Your task to perform on an android device: Search for the best gaming mouses on Amazon. Image 0: 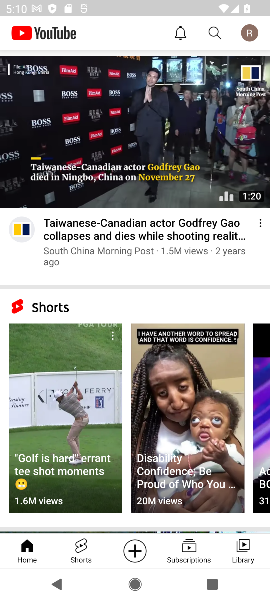
Step 0: press home button
Your task to perform on an android device: Search for the best gaming mouses on Amazon. Image 1: 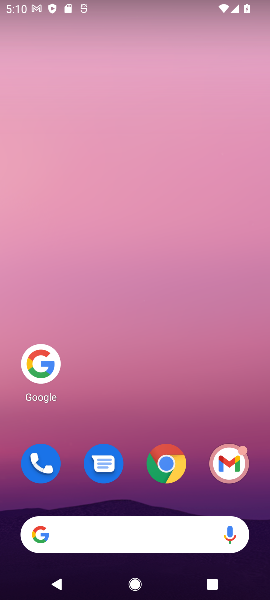
Step 1: click (39, 360)
Your task to perform on an android device: Search for the best gaming mouses on Amazon. Image 2: 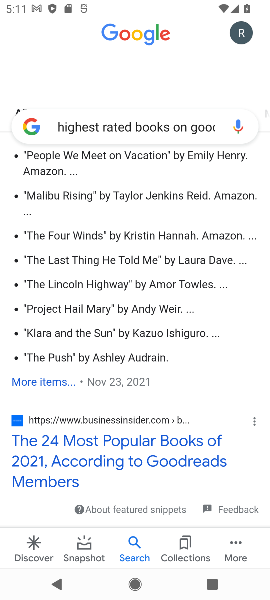
Step 2: click (168, 122)
Your task to perform on an android device: Search for the best gaming mouses on Amazon. Image 3: 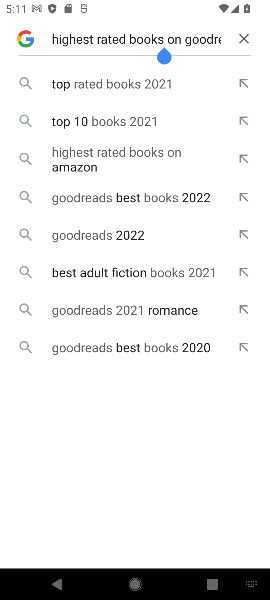
Step 3: click (240, 41)
Your task to perform on an android device: Search for the best gaming mouses on Amazon. Image 4: 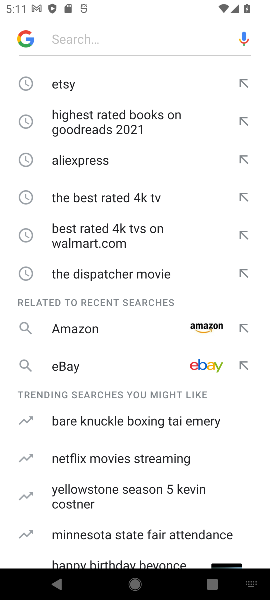
Step 4: click (134, 36)
Your task to perform on an android device: Search for the best gaming mouses on Amazon. Image 5: 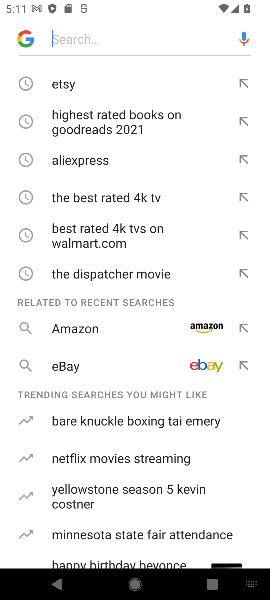
Step 5: type "best gaming mouses on Amazon "
Your task to perform on an android device: Search for the best gaming mouses on Amazon. Image 6: 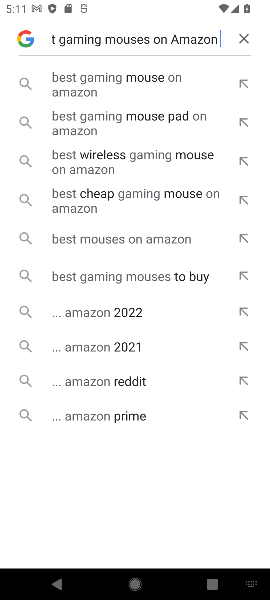
Step 6: click (92, 88)
Your task to perform on an android device: Search for the best gaming mouses on Amazon. Image 7: 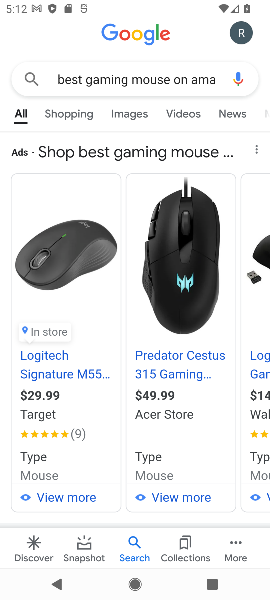
Step 7: task complete